Your task to perform on an android device: Clear the cart on amazon. Add "razer deathadder" to the cart on amazon Image 0: 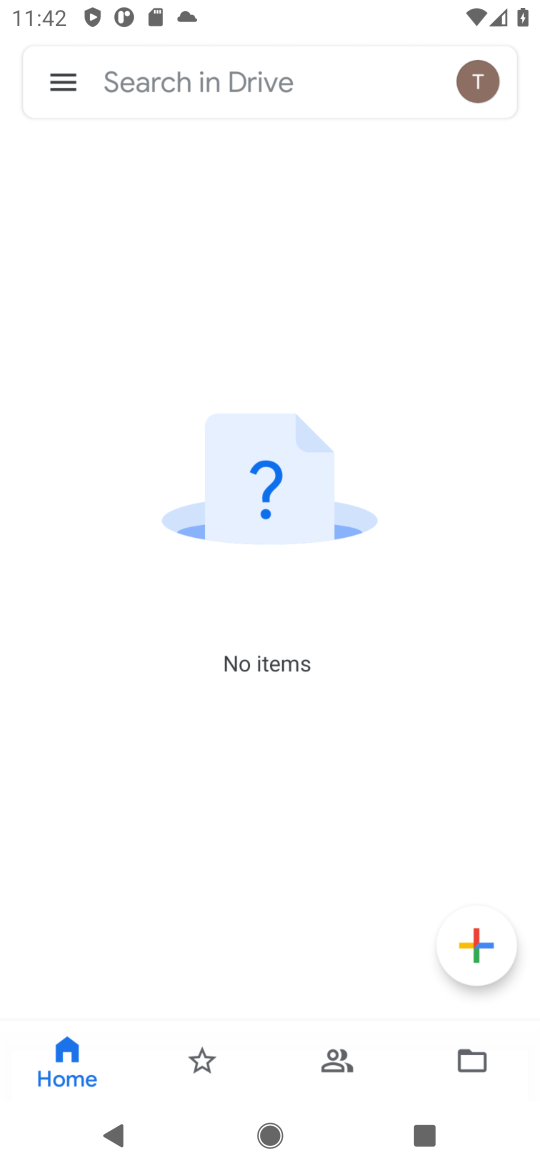
Step 0: click (384, 917)
Your task to perform on an android device: Clear the cart on amazon. Add "razer deathadder" to the cart on amazon Image 1: 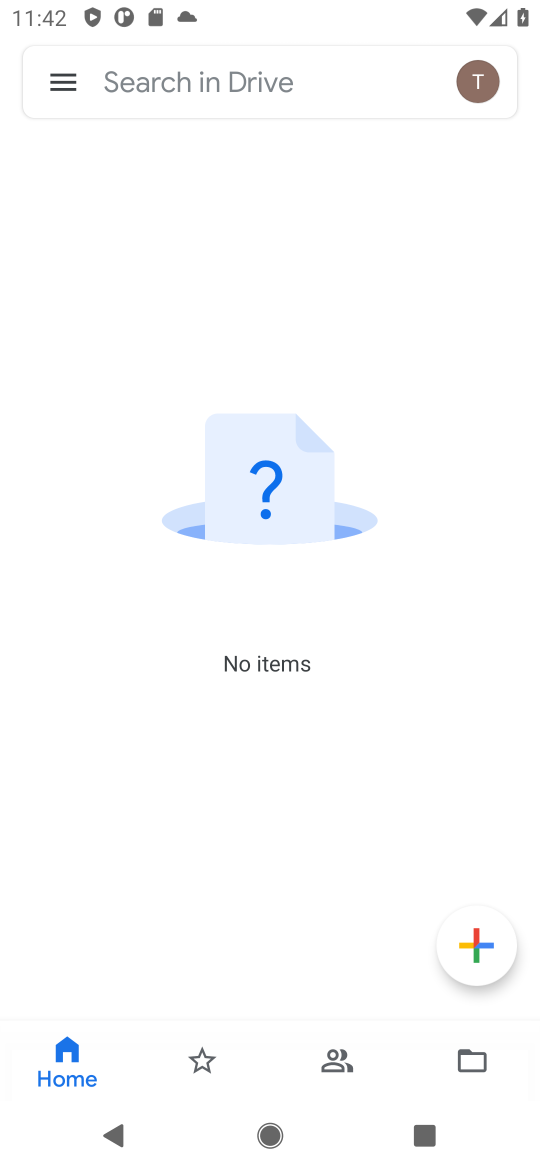
Step 1: press home button
Your task to perform on an android device: Clear the cart on amazon. Add "razer deathadder" to the cart on amazon Image 2: 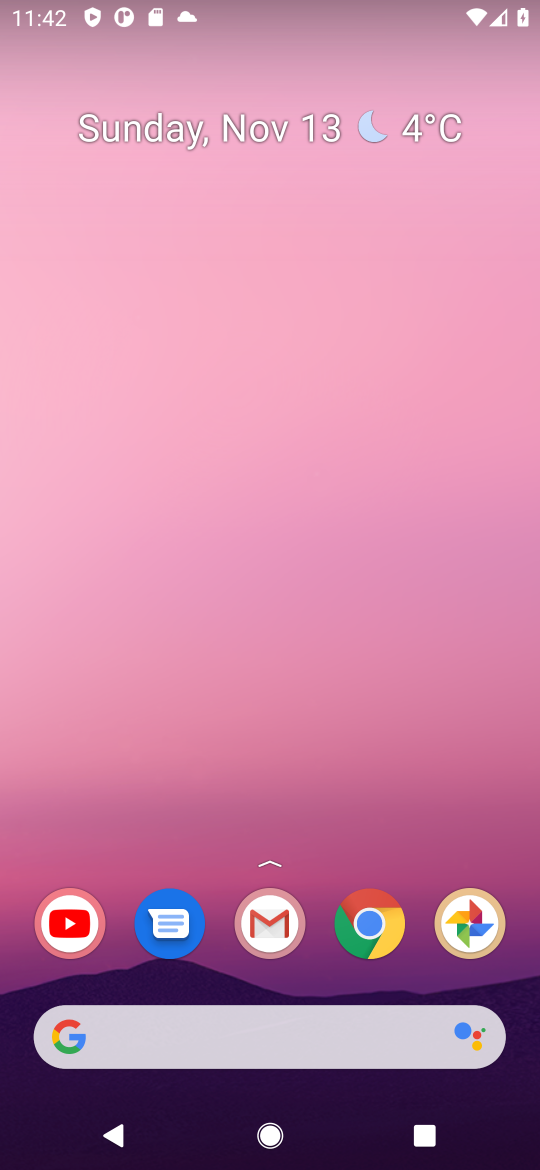
Step 2: click (359, 926)
Your task to perform on an android device: Clear the cart on amazon. Add "razer deathadder" to the cart on amazon Image 3: 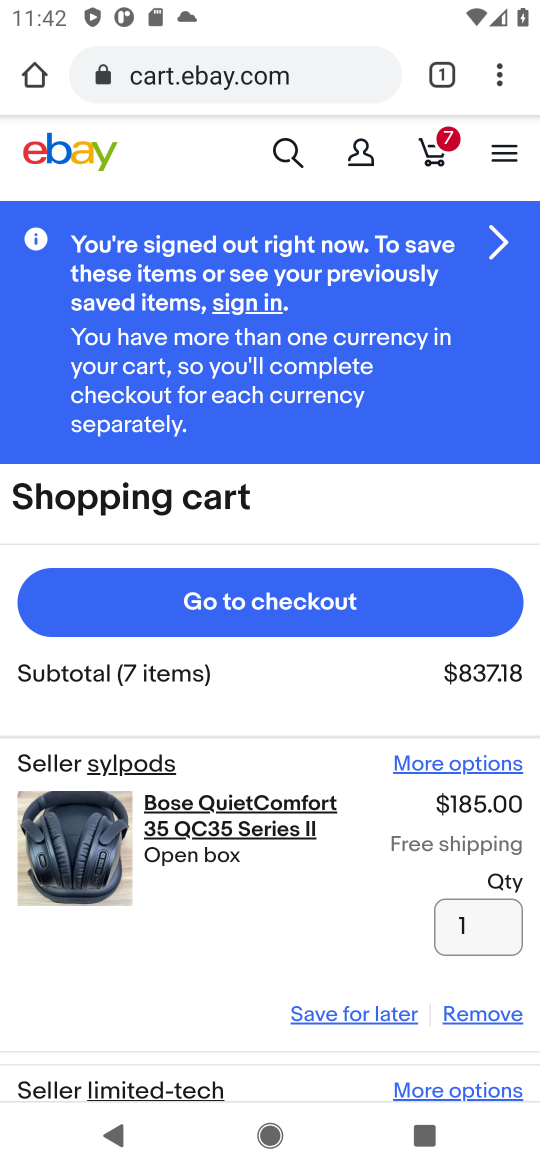
Step 3: click (341, 73)
Your task to perform on an android device: Clear the cart on amazon. Add "razer deathadder" to the cart on amazon Image 4: 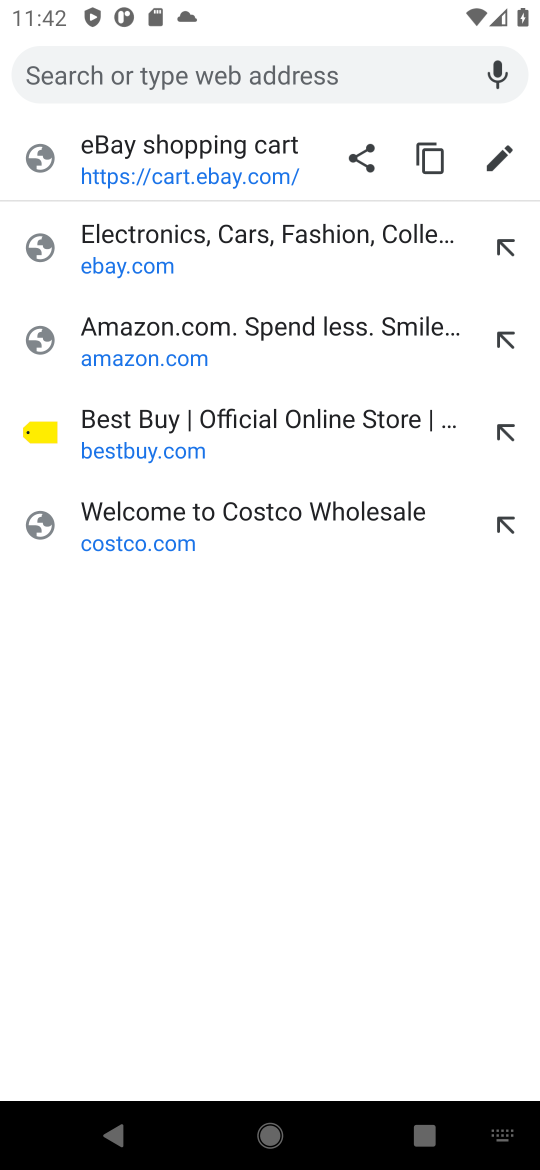
Step 4: click (185, 326)
Your task to perform on an android device: Clear the cart on amazon. Add "razer deathadder" to the cart on amazon Image 5: 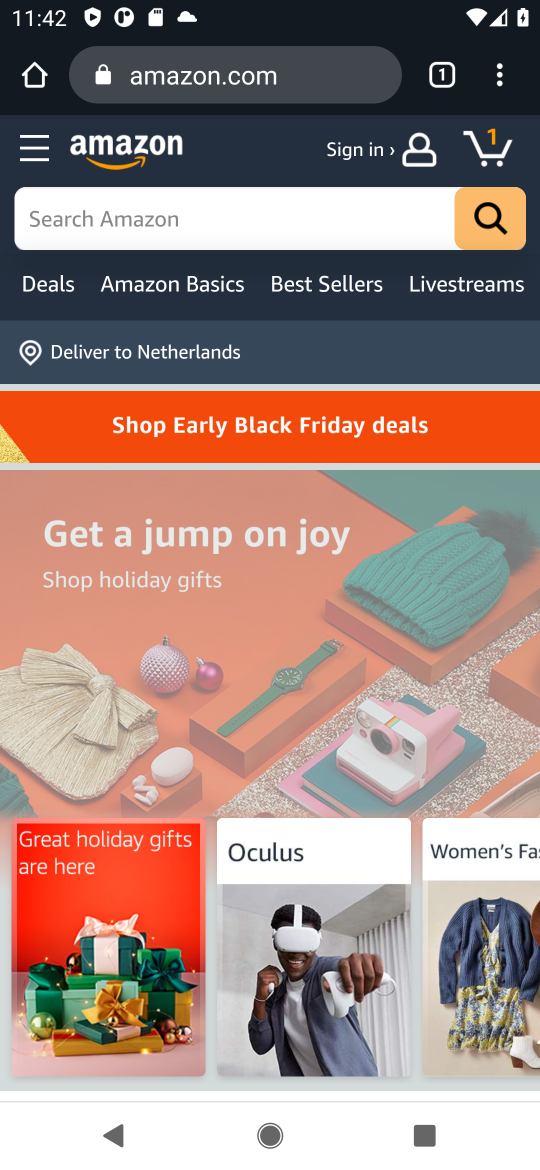
Step 5: click (487, 138)
Your task to perform on an android device: Clear the cart on amazon. Add "razer deathadder" to the cart on amazon Image 6: 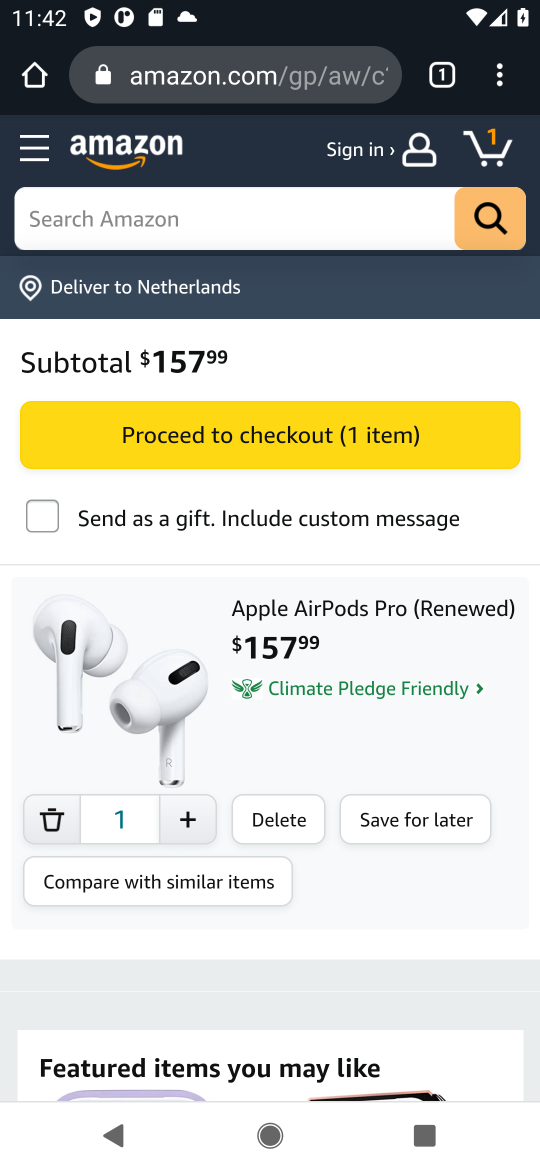
Step 6: click (274, 818)
Your task to perform on an android device: Clear the cart on amazon. Add "razer deathadder" to the cart on amazon Image 7: 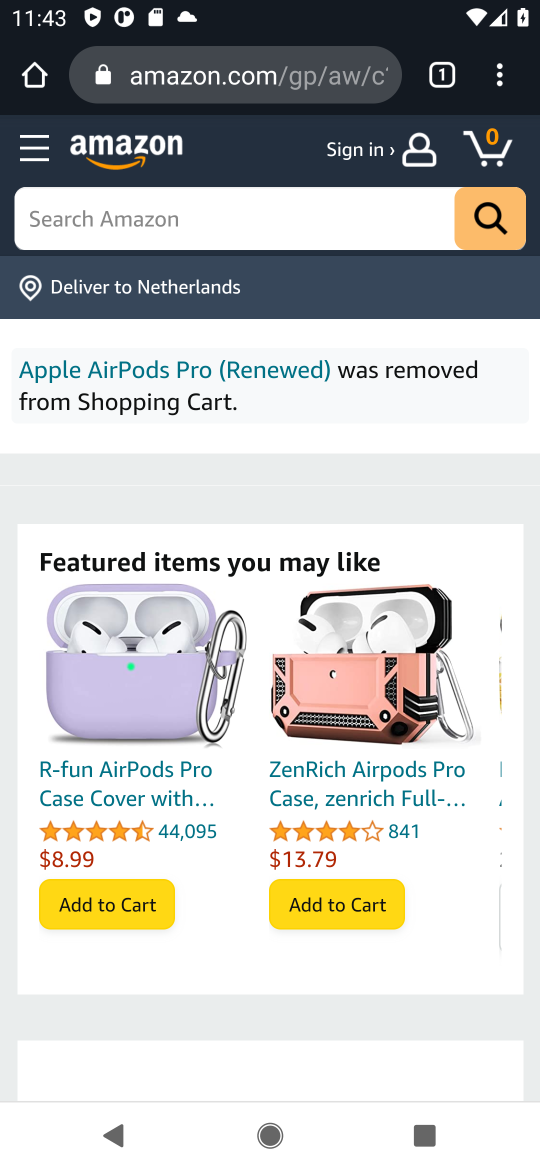
Step 7: click (313, 216)
Your task to perform on an android device: Clear the cart on amazon. Add "razer deathadder" to the cart on amazon Image 8: 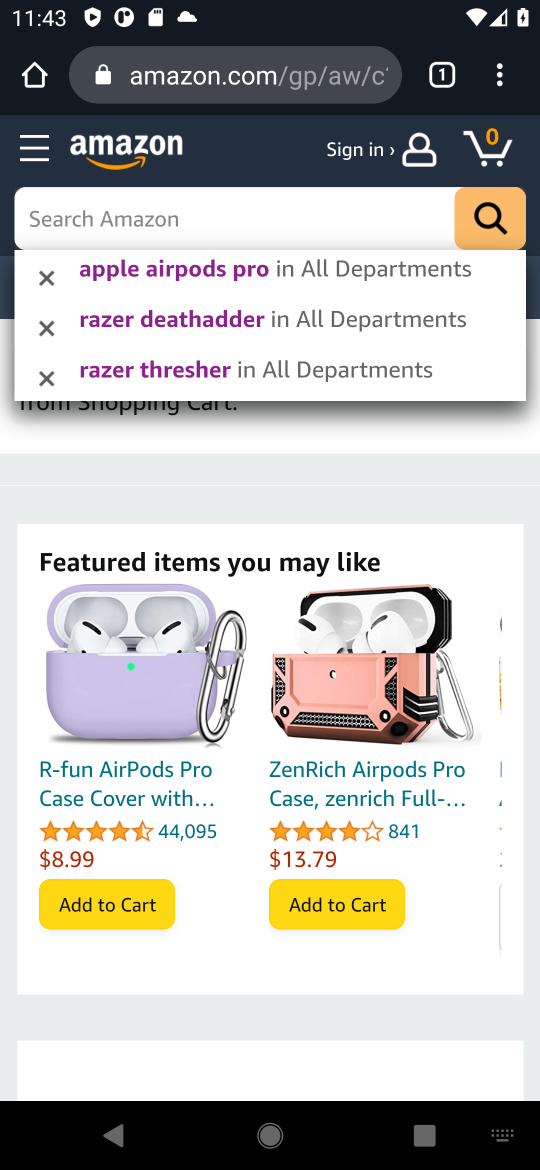
Step 8: type "razer deathadder"
Your task to perform on an android device: Clear the cart on amazon. Add "razer deathadder" to the cart on amazon Image 9: 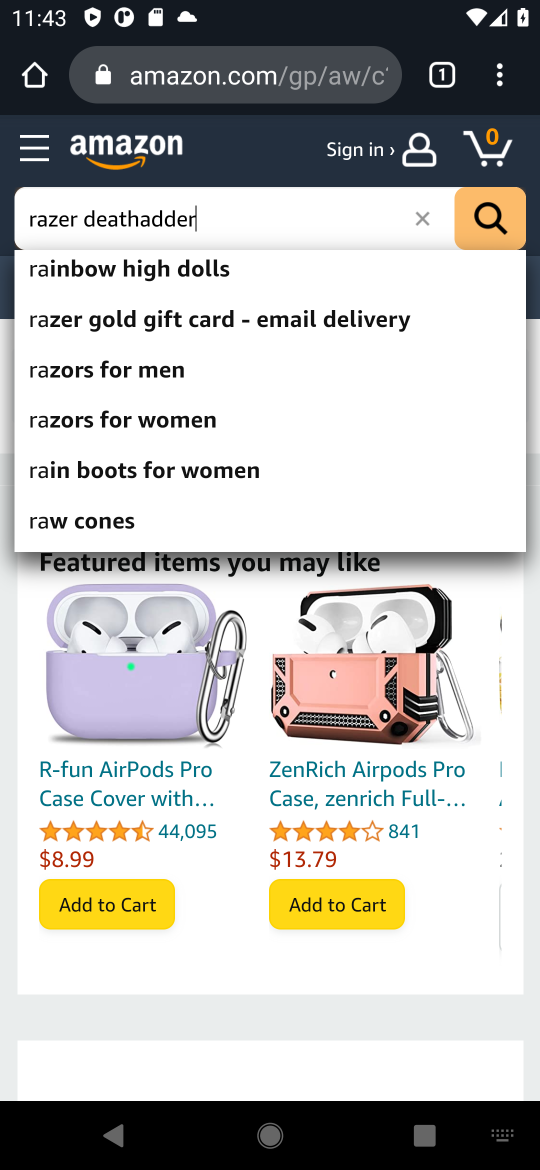
Step 9: press enter
Your task to perform on an android device: Clear the cart on amazon. Add "razer deathadder" to the cart on amazon Image 10: 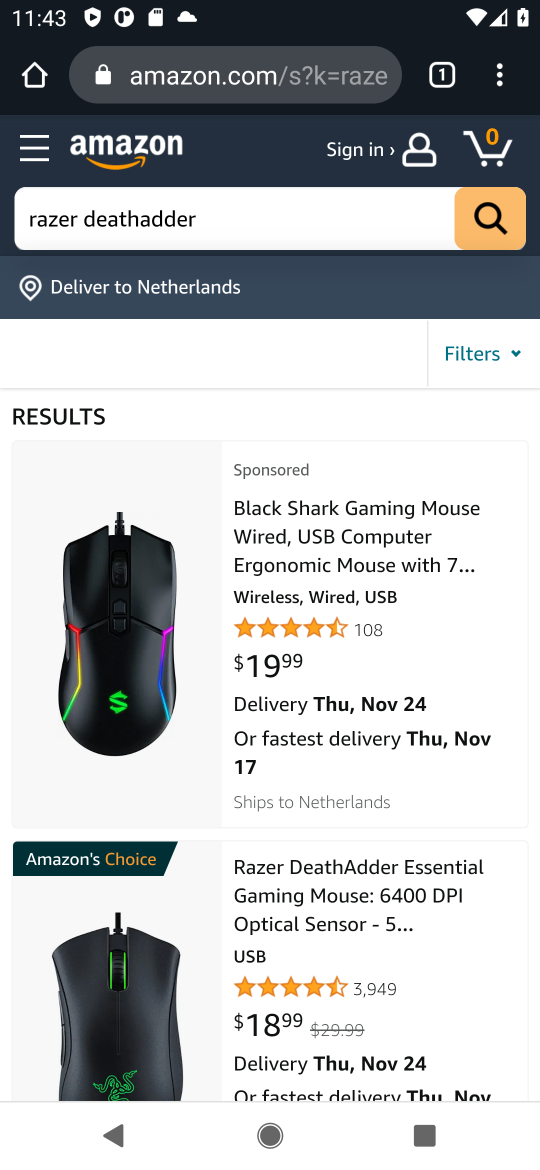
Step 10: click (109, 957)
Your task to perform on an android device: Clear the cart on amazon. Add "razer deathadder" to the cart on amazon Image 11: 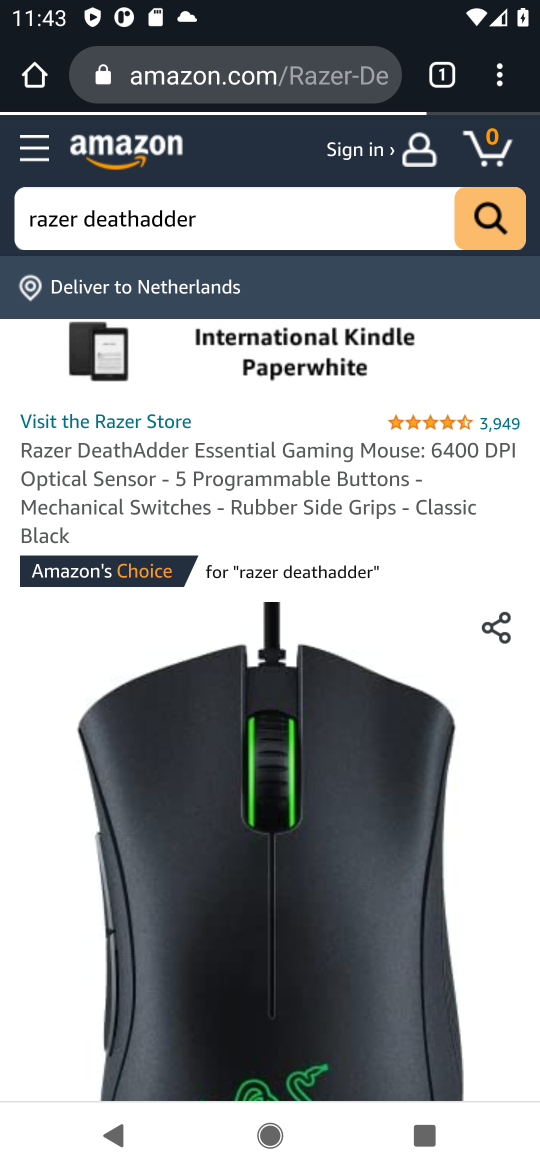
Step 11: drag from (304, 877) to (377, 276)
Your task to perform on an android device: Clear the cart on amazon. Add "razer deathadder" to the cart on amazon Image 12: 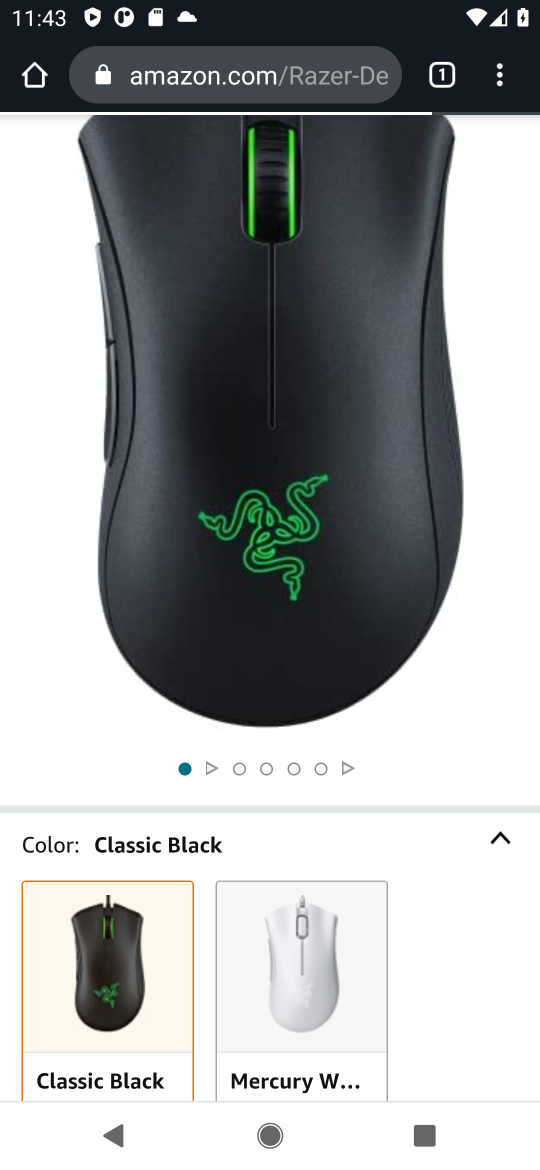
Step 12: drag from (447, 902) to (472, 477)
Your task to perform on an android device: Clear the cart on amazon. Add "razer deathadder" to the cart on amazon Image 13: 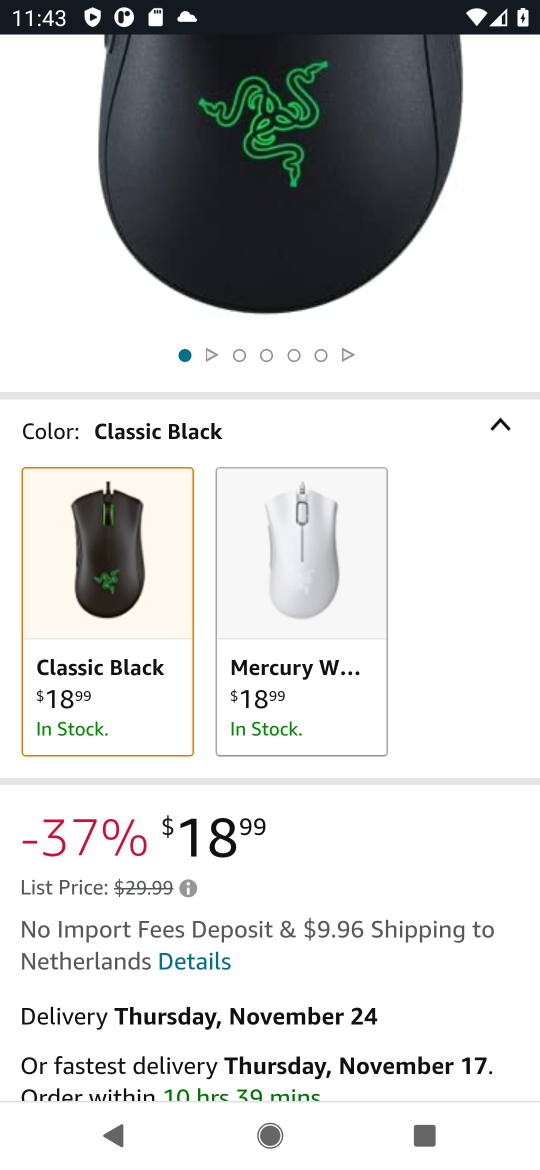
Step 13: drag from (467, 1015) to (423, 440)
Your task to perform on an android device: Clear the cart on amazon. Add "razer deathadder" to the cart on amazon Image 14: 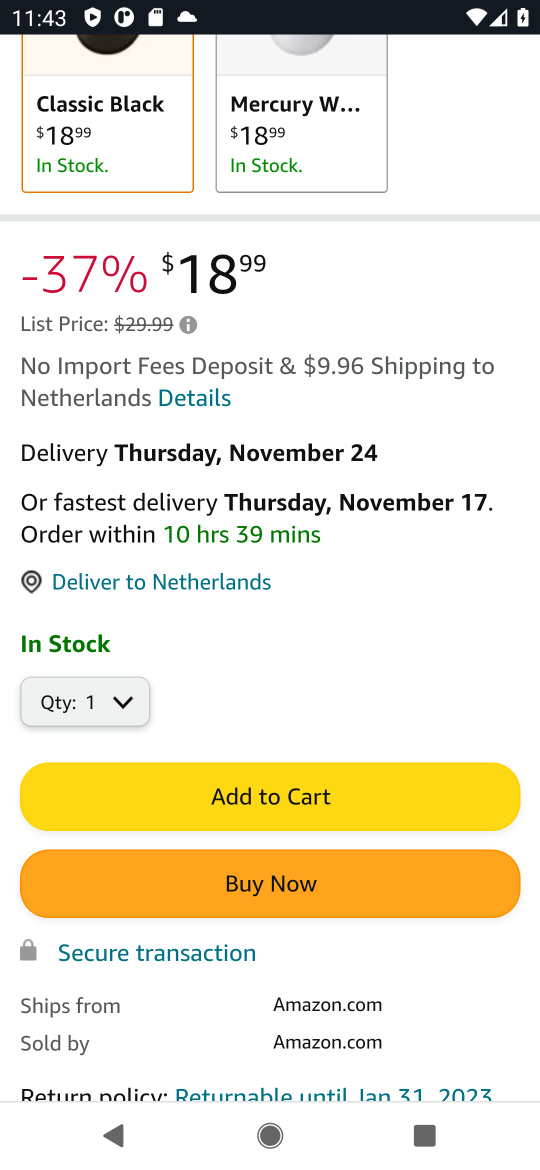
Step 14: click (287, 797)
Your task to perform on an android device: Clear the cart on amazon. Add "razer deathadder" to the cart on amazon Image 15: 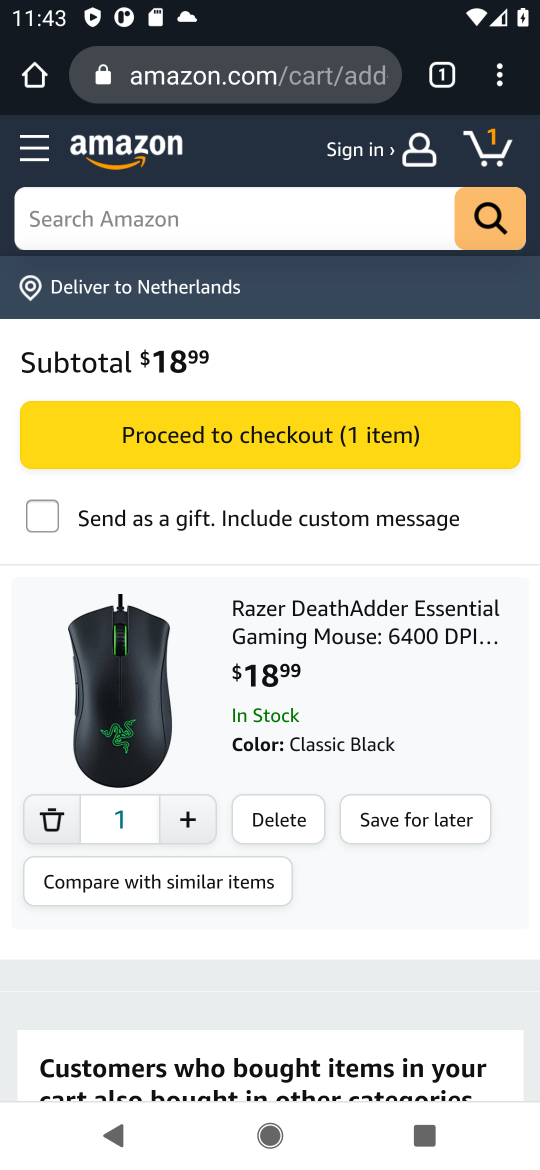
Step 15: task complete